Your task to perform on an android device: Go to Maps Image 0: 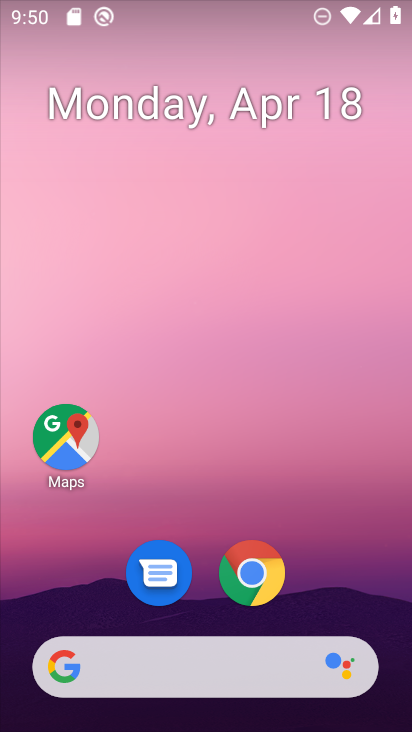
Step 0: drag from (345, 595) to (314, 108)
Your task to perform on an android device: Go to Maps Image 1: 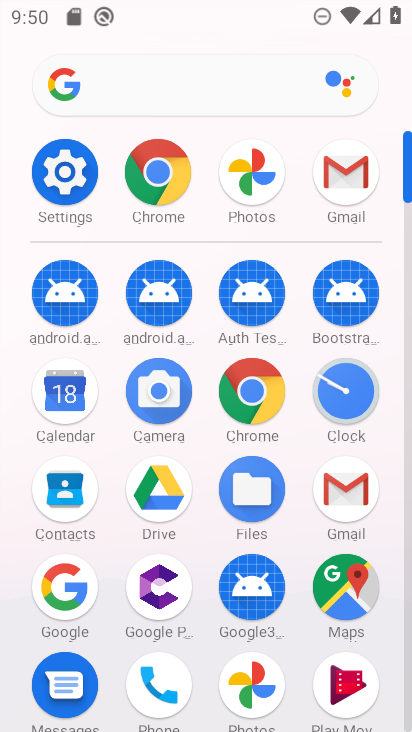
Step 1: click (342, 598)
Your task to perform on an android device: Go to Maps Image 2: 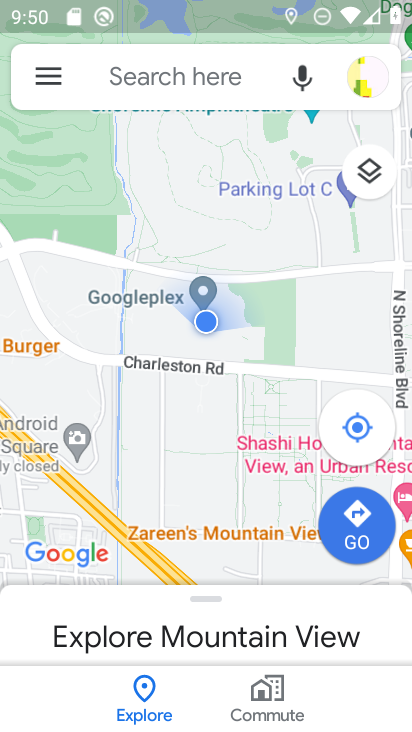
Step 2: task complete